Your task to perform on an android device: find photos in the google photos app Image 0: 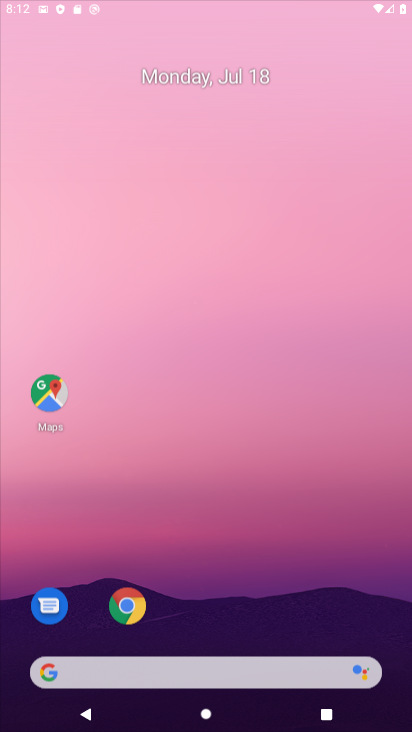
Step 0: press home button
Your task to perform on an android device: find photos in the google photos app Image 1: 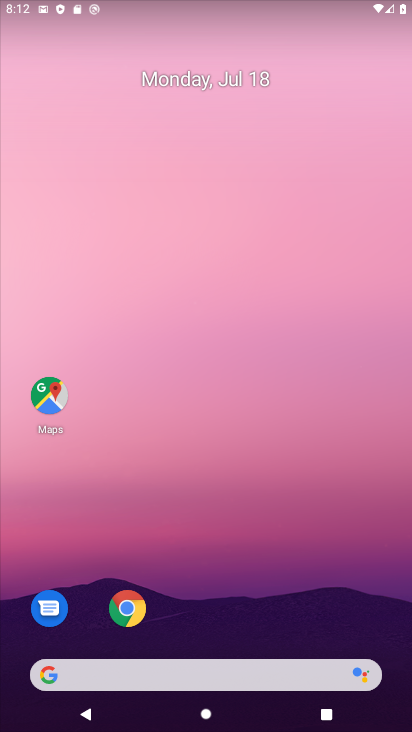
Step 1: drag from (303, 593) to (234, 104)
Your task to perform on an android device: find photos in the google photos app Image 2: 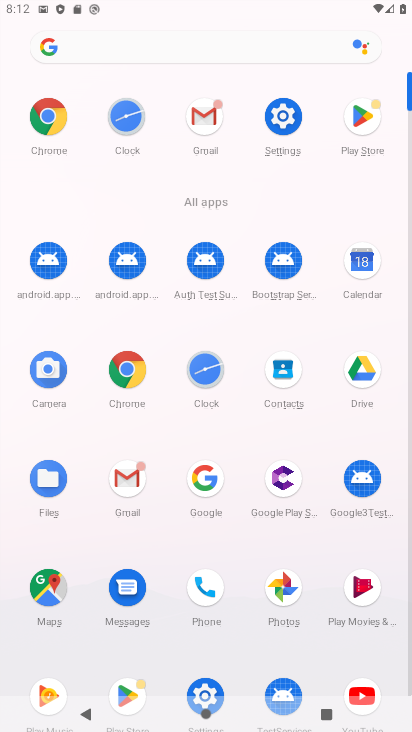
Step 2: click (292, 590)
Your task to perform on an android device: find photos in the google photos app Image 3: 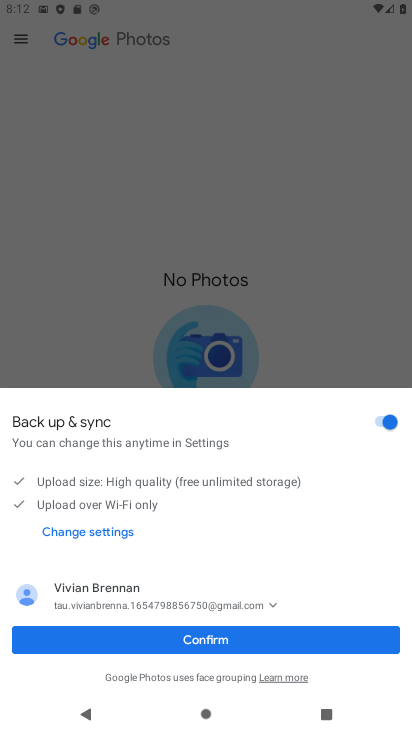
Step 3: click (152, 632)
Your task to perform on an android device: find photos in the google photos app Image 4: 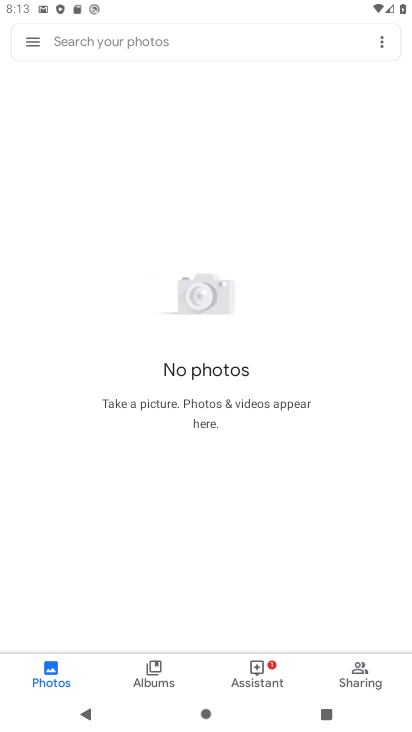
Step 4: task complete